Your task to perform on an android device: toggle notification dots Image 0: 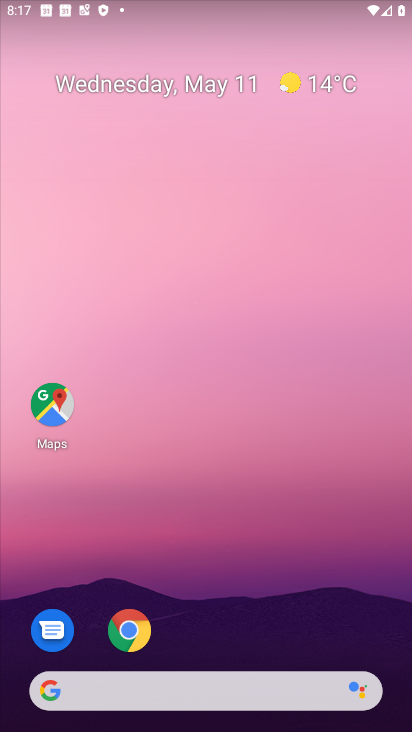
Step 0: drag from (206, 660) to (350, 29)
Your task to perform on an android device: toggle notification dots Image 1: 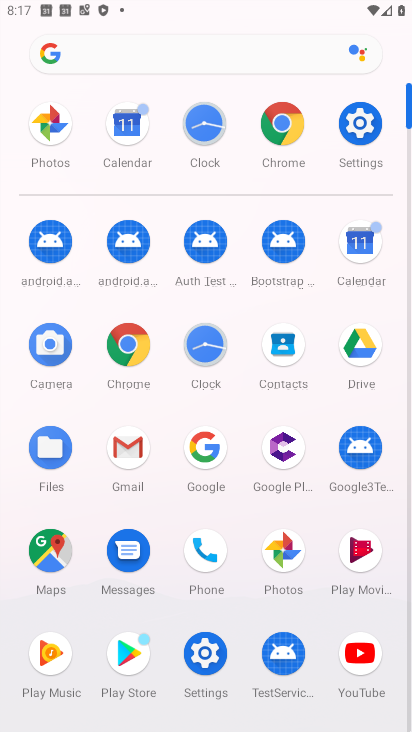
Step 1: click (349, 121)
Your task to perform on an android device: toggle notification dots Image 2: 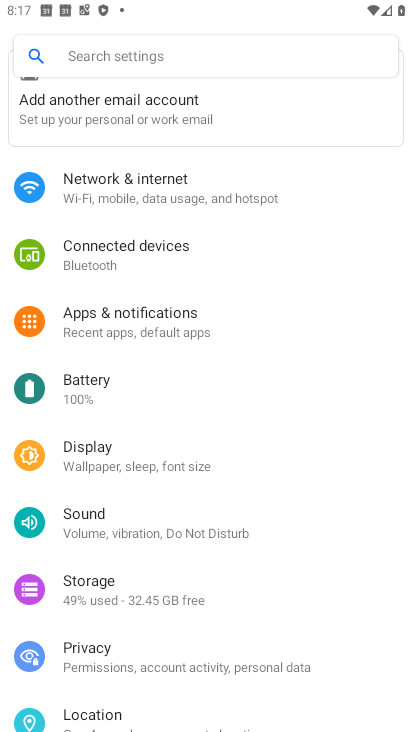
Step 2: click (145, 317)
Your task to perform on an android device: toggle notification dots Image 3: 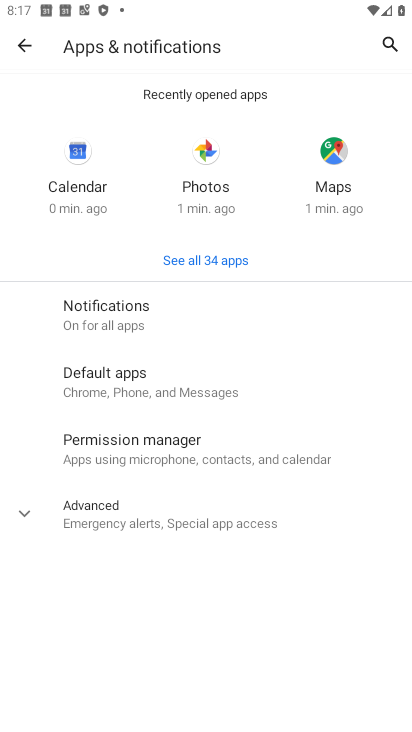
Step 3: click (97, 499)
Your task to perform on an android device: toggle notification dots Image 4: 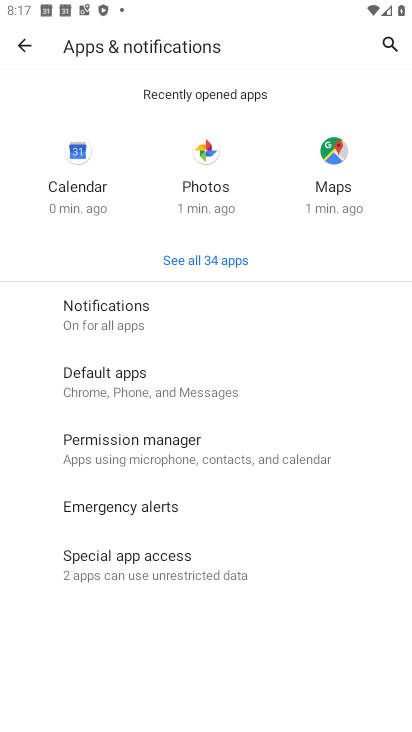
Step 4: click (101, 295)
Your task to perform on an android device: toggle notification dots Image 5: 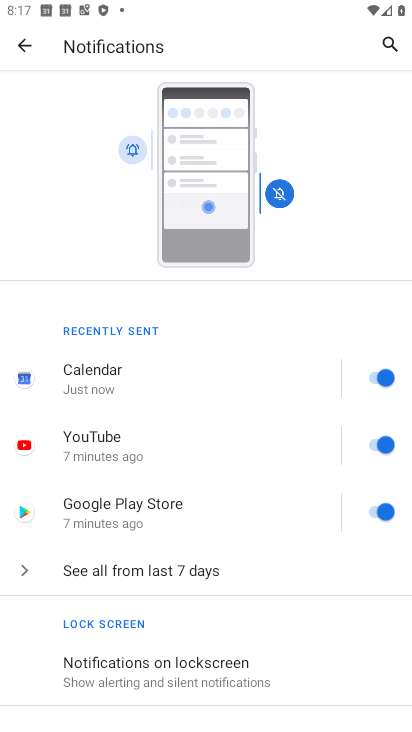
Step 5: drag from (195, 616) to (114, 192)
Your task to perform on an android device: toggle notification dots Image 6: 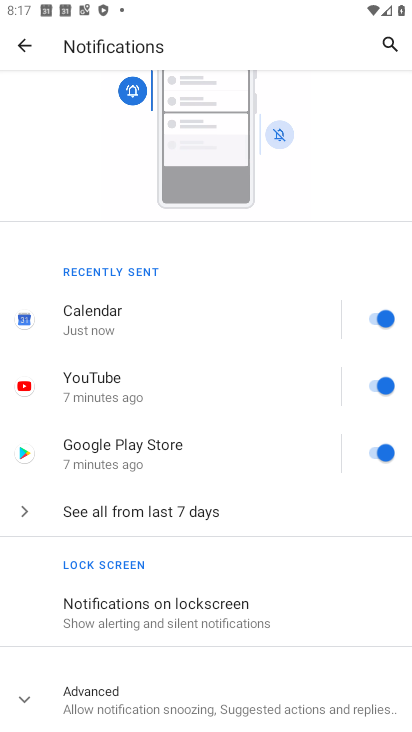
Step 6: click (145, 688)
Your task to perform on an android device: toggle notification dots Image 7: 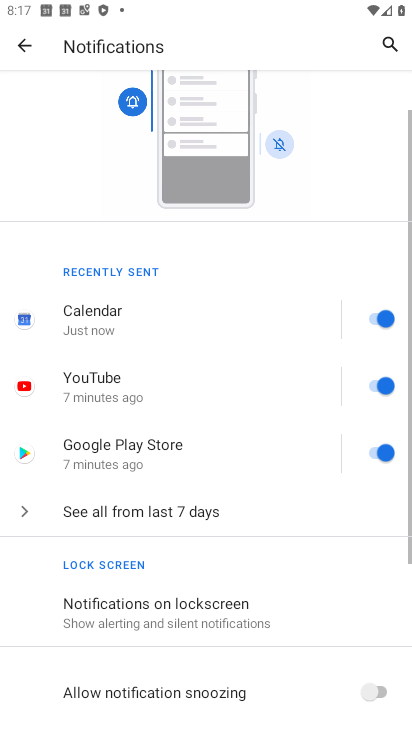
Step 7: drag from (145, 688) to (121, 423)
Your task to perform on an android device: toggle notification dots Image 8: 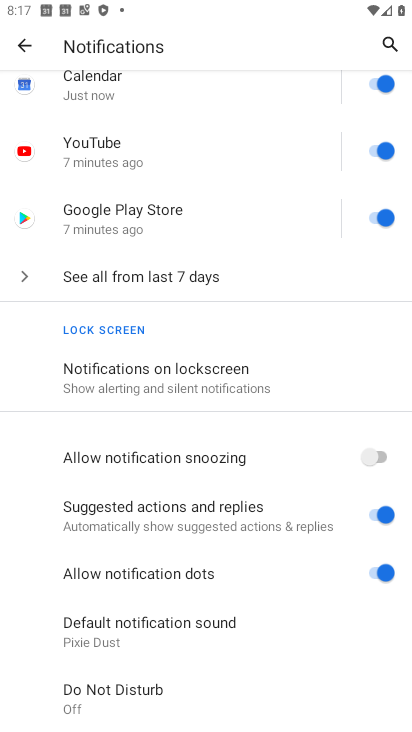
Step 8: click (385, 572)
Your task to perform on an android device: toggle notification dots Image 9: 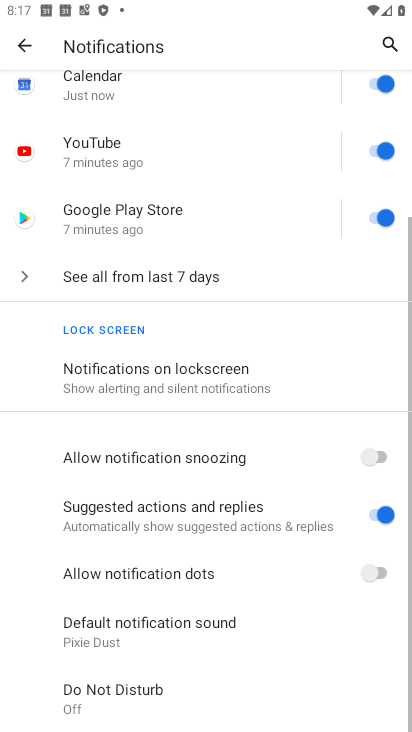
Step 9: task complete